Your task to perform on an android device: Search for vegetarian restaurants on Maps Image 0: 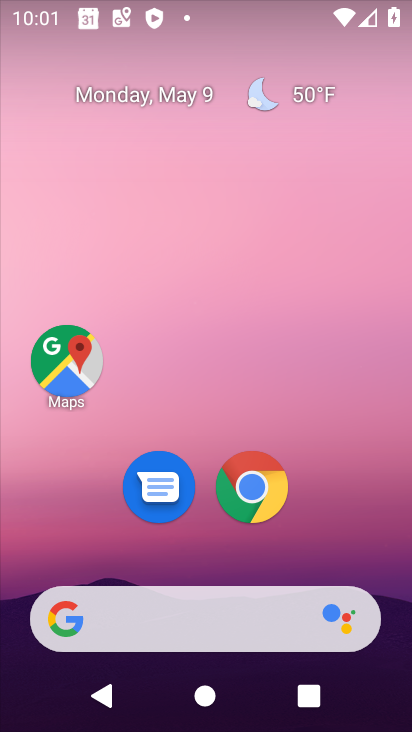
Step 0: click (55, 361)
Your task to perform on an android device: Search for vegetarian restaurants on Maps Image 1: 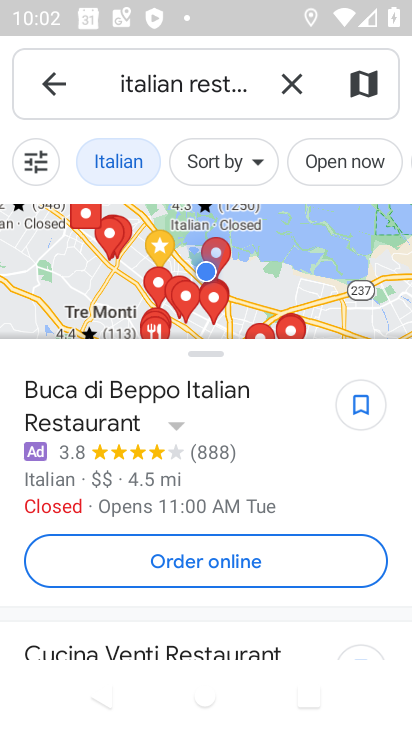
Step 1: click (297, 84)
Your task to perform on an android device: Search for vegetarian restaurants on Maps Image 2: 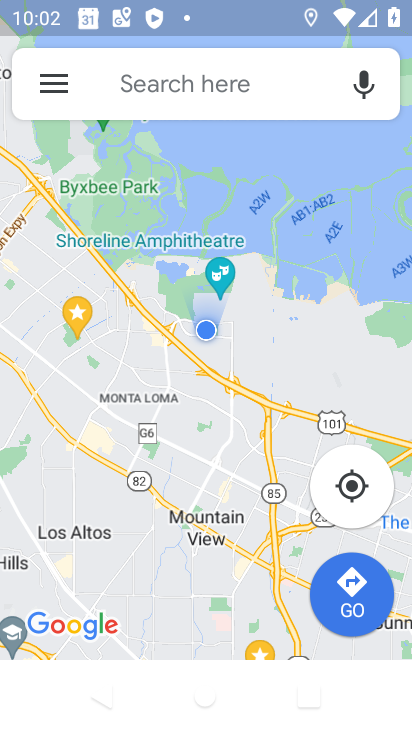
Step 2: click (163, 82)
Your task to perform on an android device: Search for vegetarian restaurants on Maps Image 3: 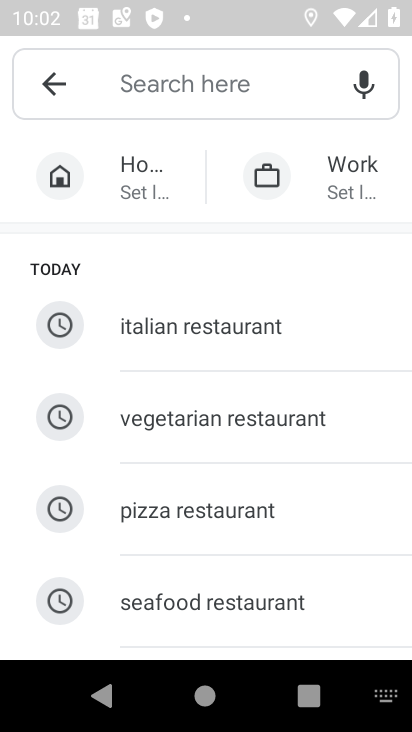
Step 3: click (197, 422)
Your task to perform on an android device: Search for vegetarian restaurants on Maps Image 4: 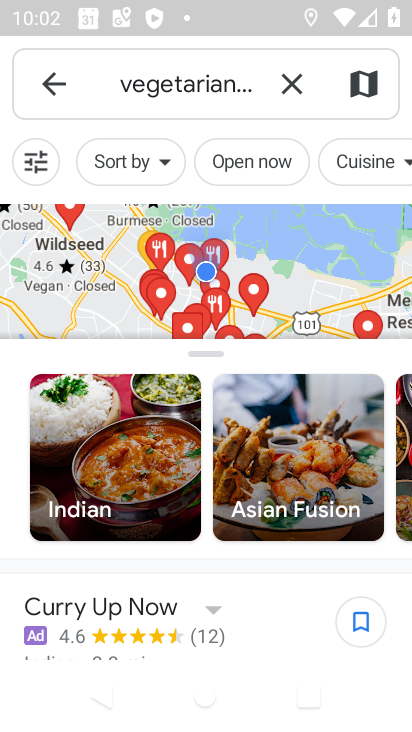
Step 4: task complete